Your task to perform on an android device: show emergency info Image 0: 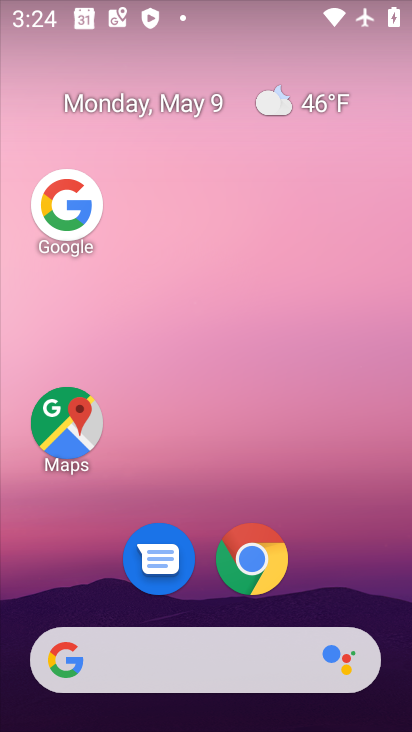
Step 0: drag from (332, 598) to (353, 148)
Your task to perform on an android device: show emergency info Image 1: 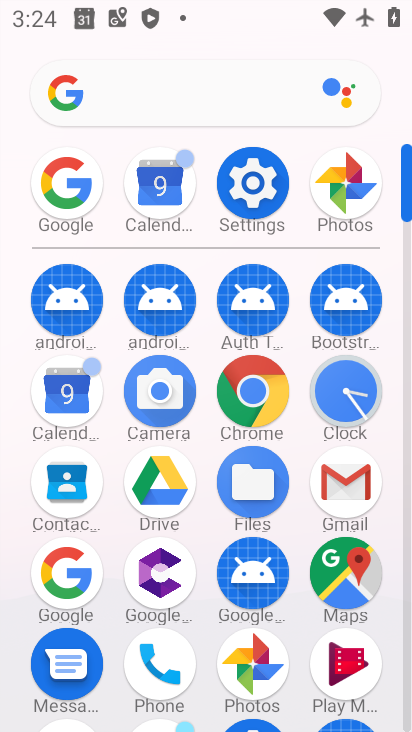
Step 1: click (272, 180)
Your task to perform on an android device: show emergency info Image 2: 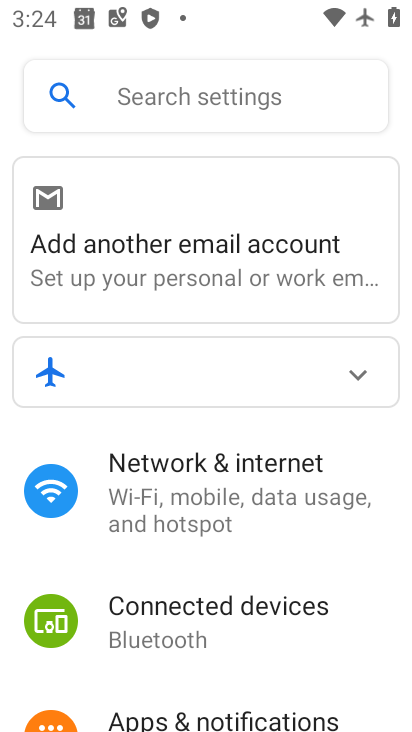
Step 2: drag from (265, 658) to (264, 207)
Your task to perform on an android device: show emergency info Image 3: 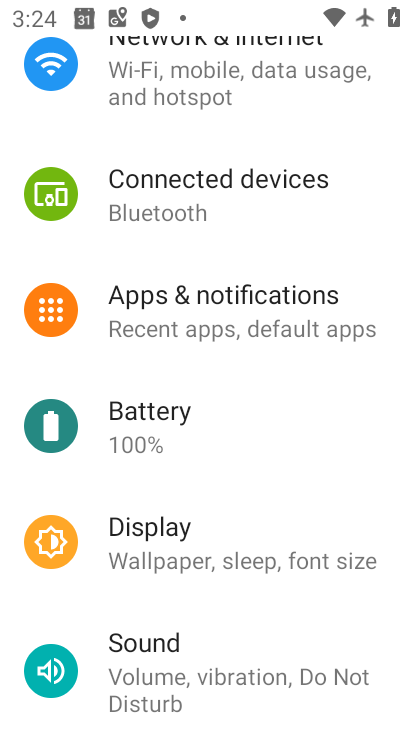
Step 3: drag from (261, 647) to (308, 226)
Your task to perform on an android device: show emergency info Image 4: 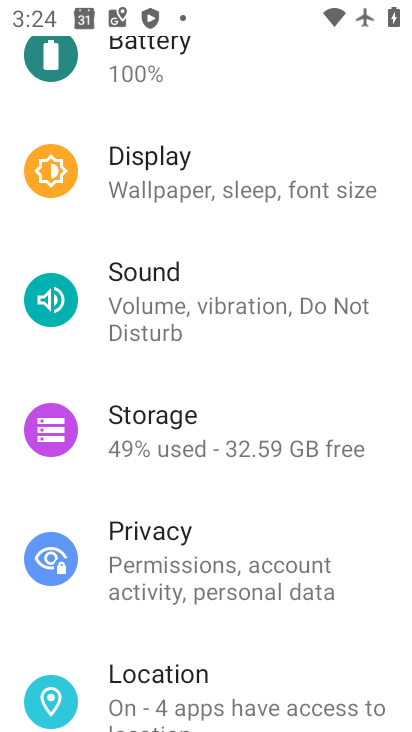
Step 4: drag from (264, 662) to (318, 208)
Your task to perform on an android device: show emergency info Image 5: 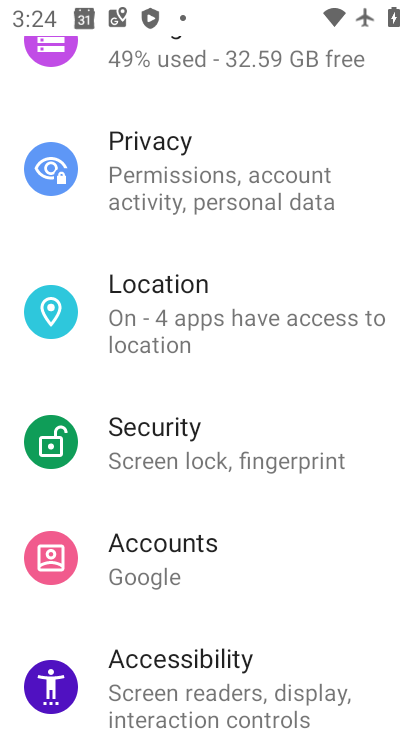
Step 5: drag from (299, 614) to (326, 241)
Your task to perform on an android device: show emergency info Image 6: 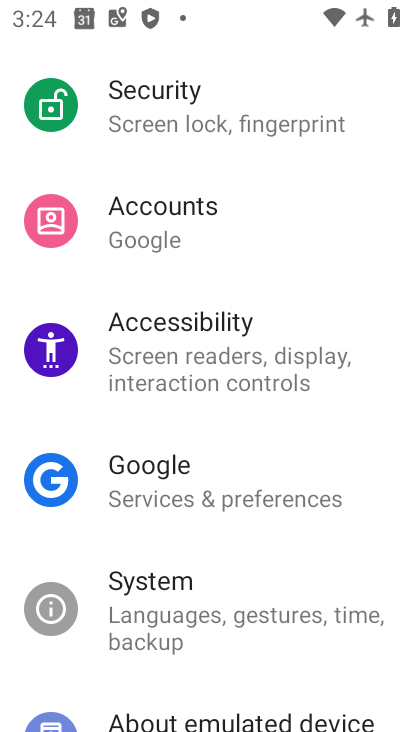
Step 6: drag from (280, 667) to (330, 273)
Your task to perform on an android device: show emergency info Image 7: 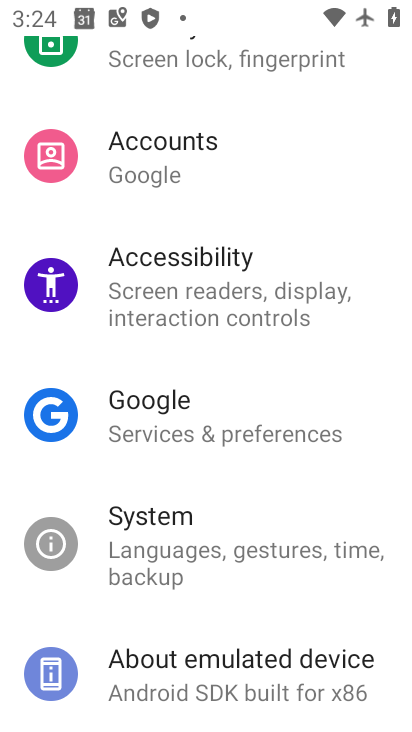
Step 7: click (282, 671)
Your task to perform on an android device: show emergency info Image 8: 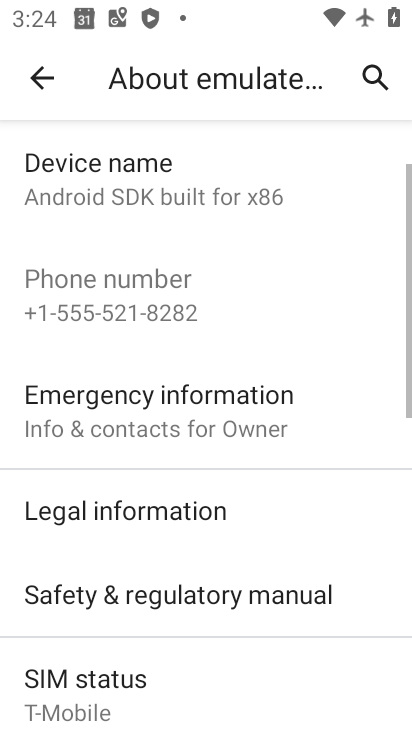
Step 8: click (273, 438)
Your task to perform on an android device: show emergency info Image 9: 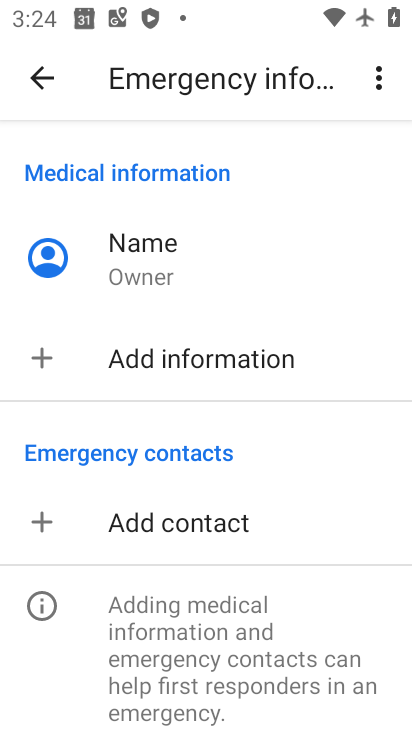
Step 9: task complete